Your task to perform on an android device: Do I have any events today? Image 0: 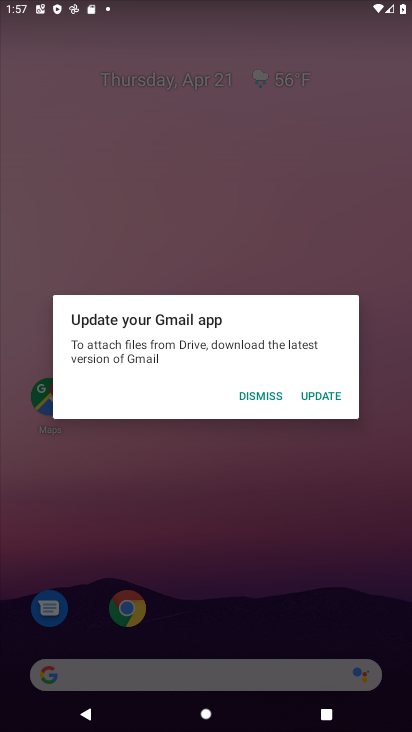
Step 0: press home button
Your task to perform on an android device: Do I have any events today? Image 1: 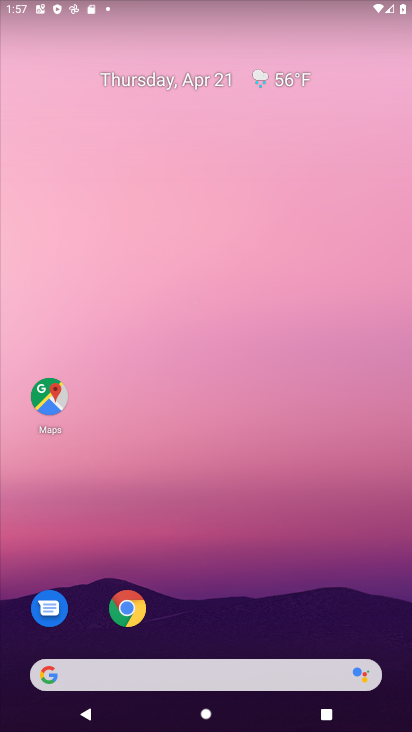
Step 1: drag from (230, 625) to (242, 25)
Your task to perform on an android device: Do I have any events today? Image 2: 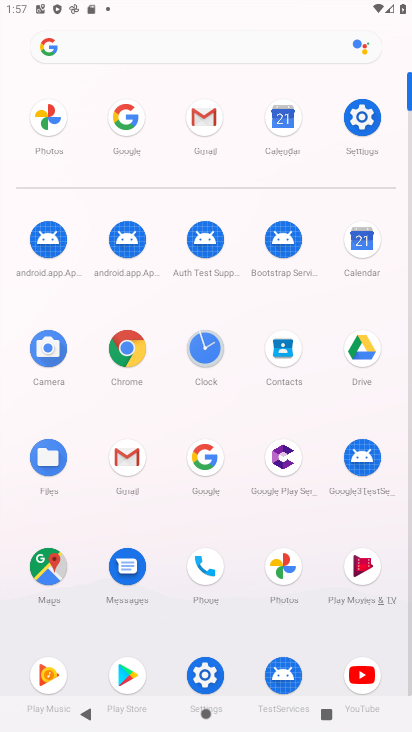
Step 2: click (277, 123)
Your task to perform on an android device: Do I have any events today? Image 3: 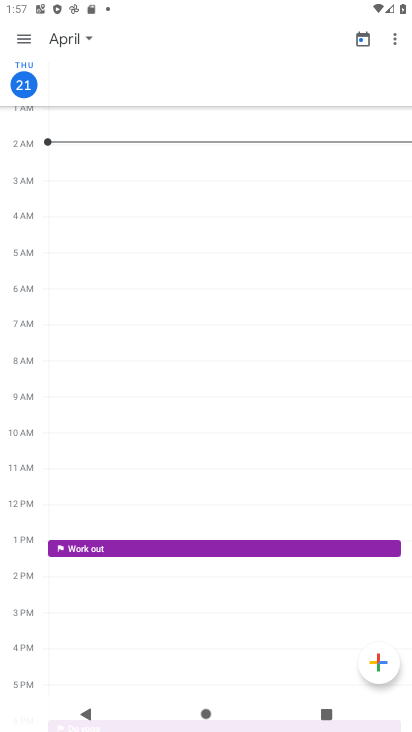
Step 3: click (24, 39)
Your task to perform on an android device: Do I have any events today? Image 4: 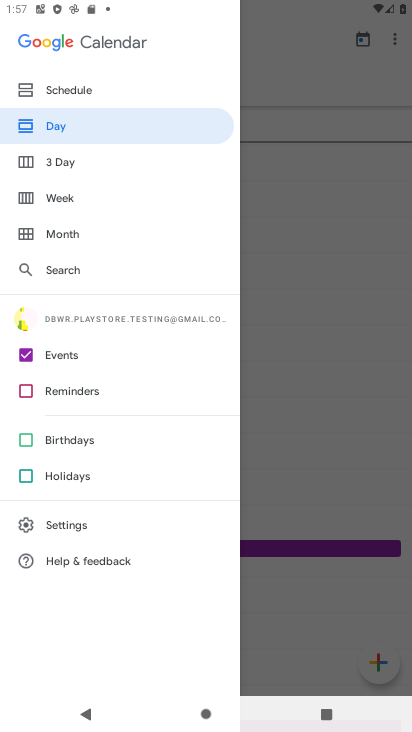
Step 4: click (71, 89)
Your task to perform on an android device: Do I have any events today? Image 5: 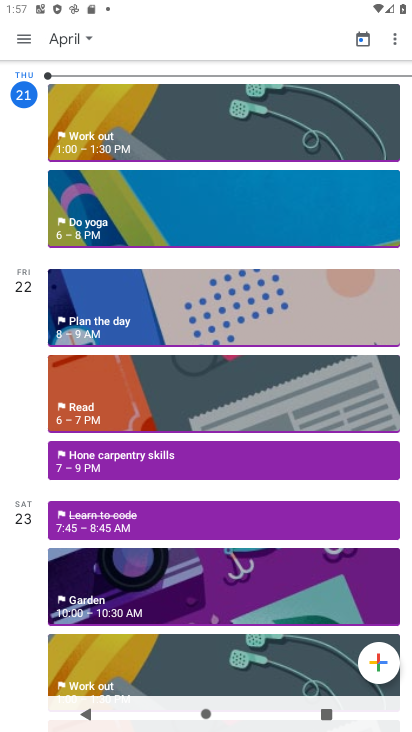
Step 5: task complete